Your task to perform on an android device: turn vacation reply on in the gmail app Image 0: 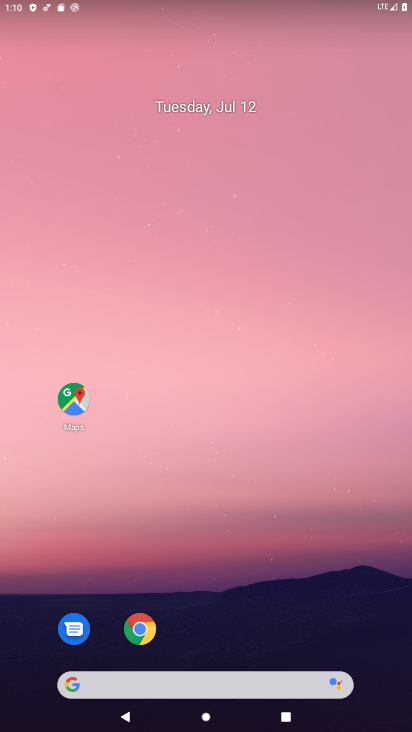
Step 0: drag from (280, 674) to (380, 0)
Your task to perform on an android device: turn vacation reply on in the gmail app Image 1: 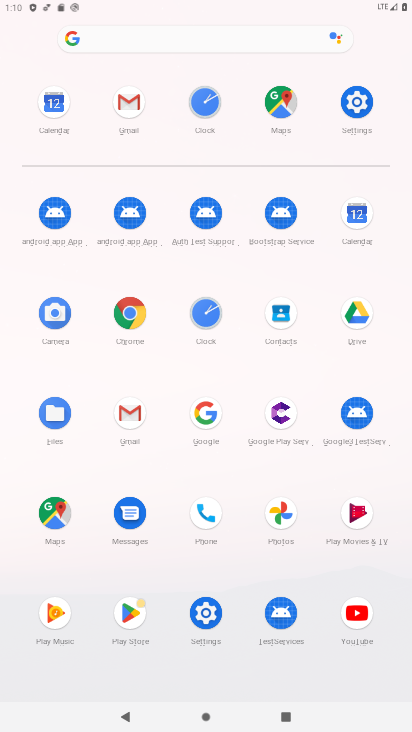
Step 1: click (136, 412)
Your task to perform on an android device: turn vacation reply on in the gmail app Image 2: 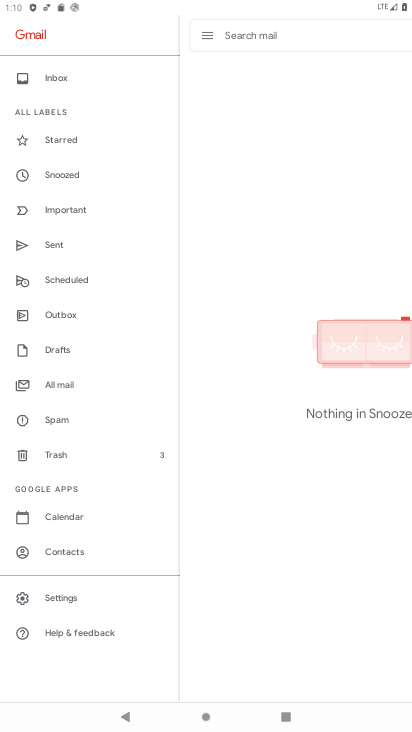
Step 2: click (76, 599)
Your task to perform on an android device: turn vacation reply on in the gmail app Image 3: 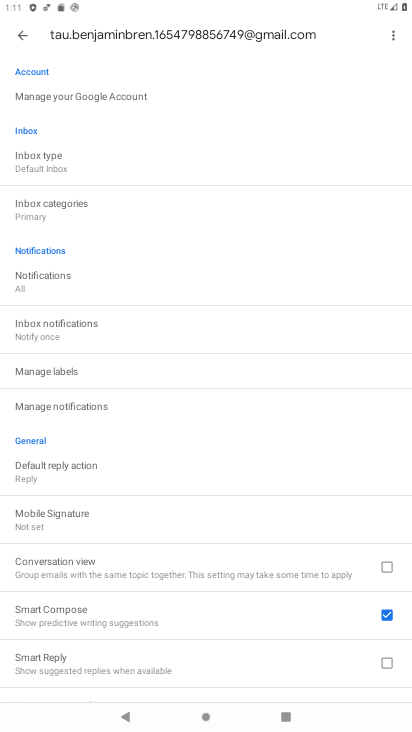
Step 3: drag from (151, 661) to (191, 332)
Your task to perform on an android device: turn vacation reply on in the gmail app Image 4: 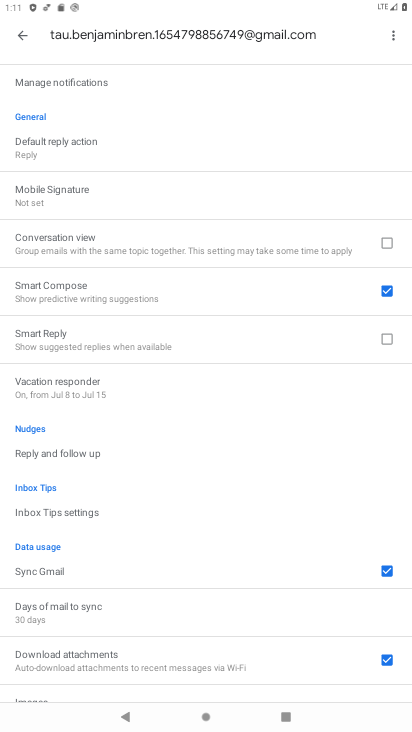
Step 4: click (87, 388)
Your task to perform on an android device: turn vacation reply on in the gmail app Image 5: 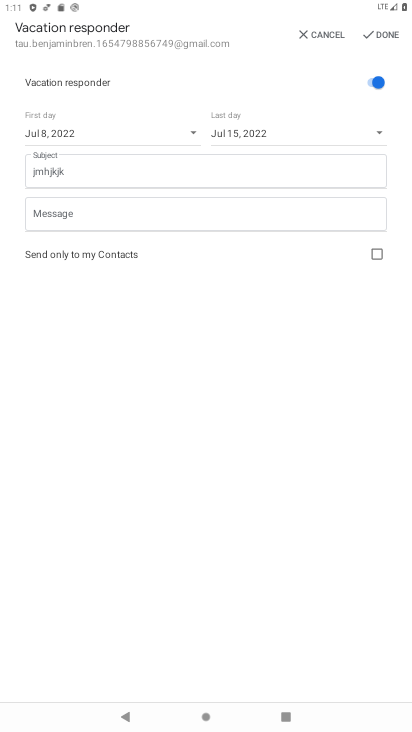
Step 5: task complete